Your task to perform on an android device: Go to internet settings Image 0: 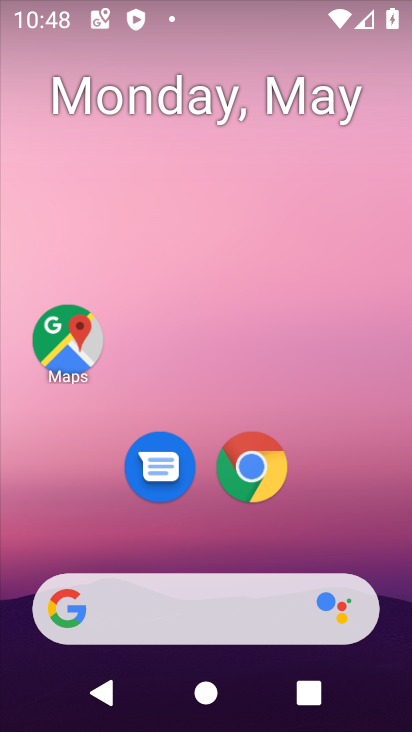
Step 0: drag from (387, 685) to (377, 185)
Your task to perform on an android device: Go to internet settings Image 1: 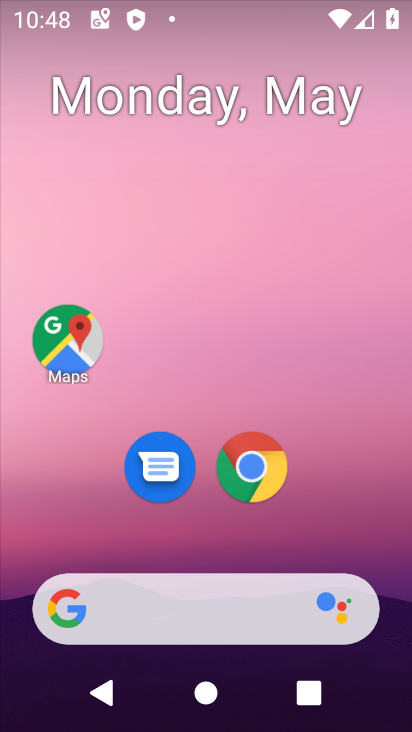
Step 1: drag from (383, 661) to (344, 60)
Your task to perform on an android device: Go to internet settings Image 2: 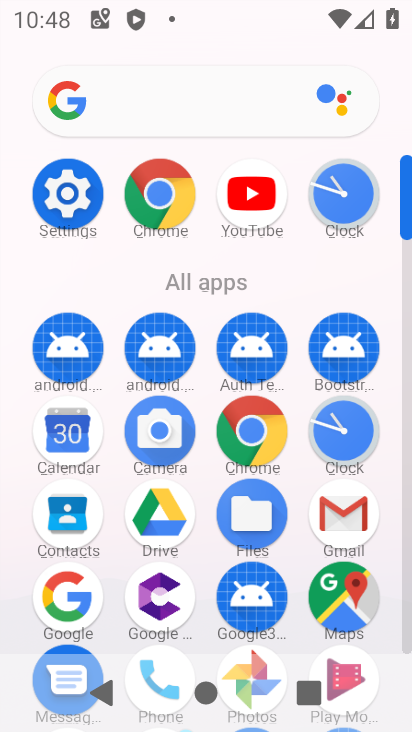
Step 2: click (75, 190)
Your task to perform on an android device: Go to internet settings Image 3: 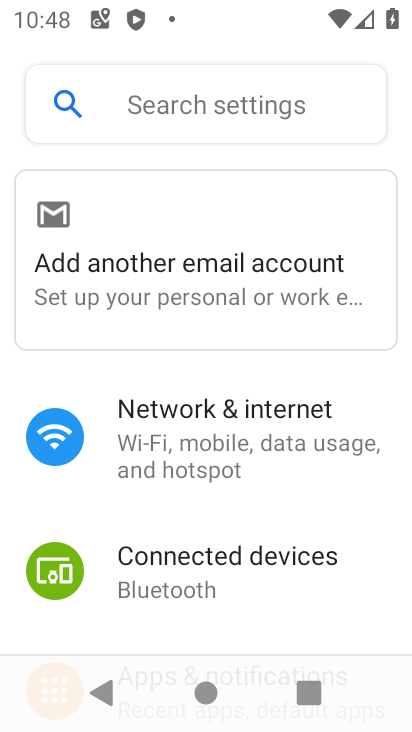
Step 3: click (202, 436)
Your task to perform on an android device: Go to internet settings Image 4: 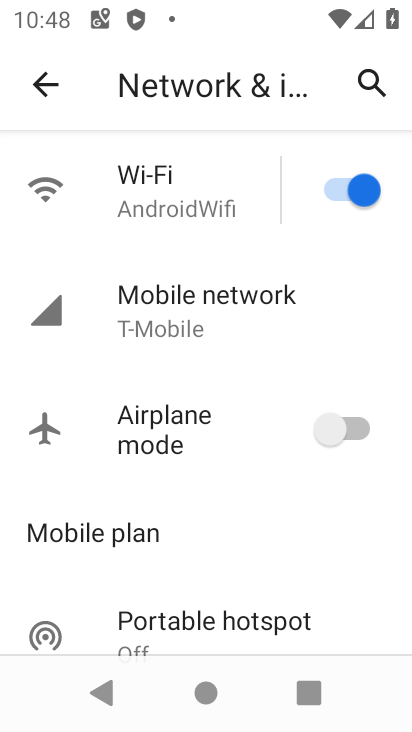
Step 4: drag from (262, 197) to (255, 564)
Your task to perform on an android device: Go to internet settings Image 5: 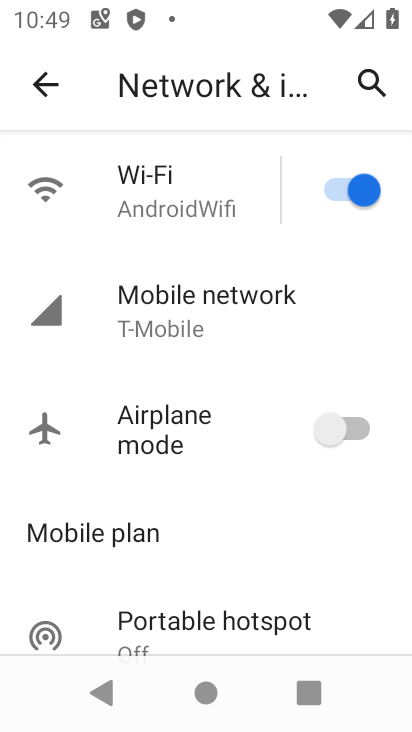
Step 5: click (181, 307)
Your task to perform on an android device: Go to internet settings Image 6: 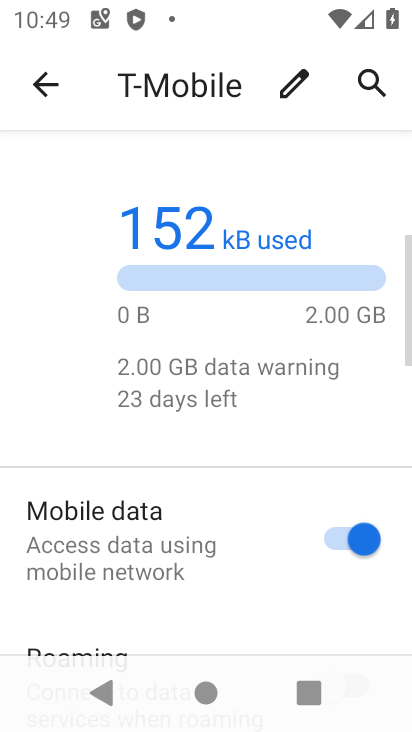
Step 6: task complete